Your task to perform on an android device: open sync settings in chrome Image 0: 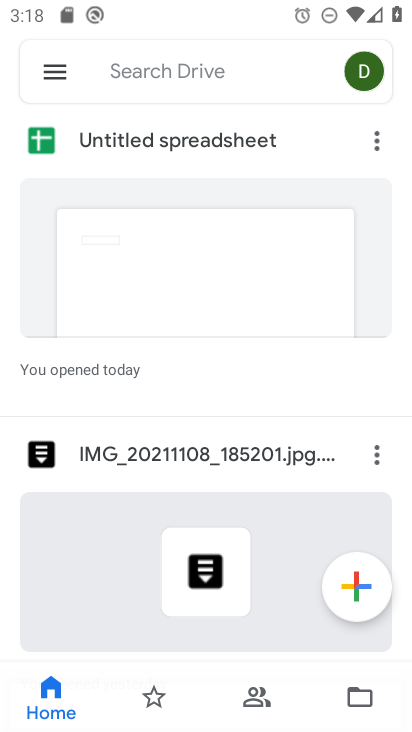
Step 0: press back button
Your task to perform on an android device: open sync settings in chrome Image 1: 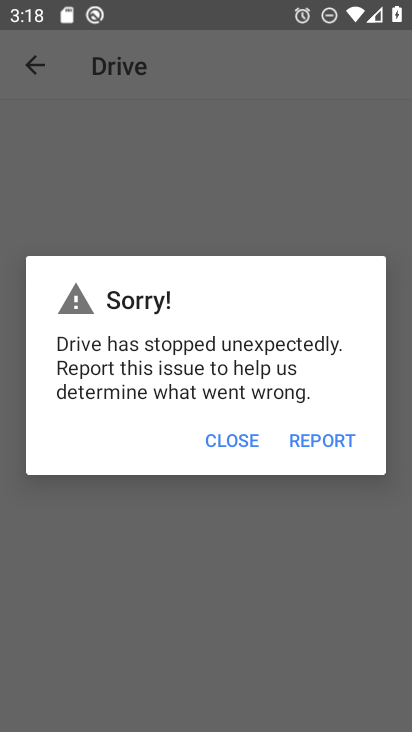
Step 1: press home button
Your task to perform on an android device: open sync settings in chrome Image 2: 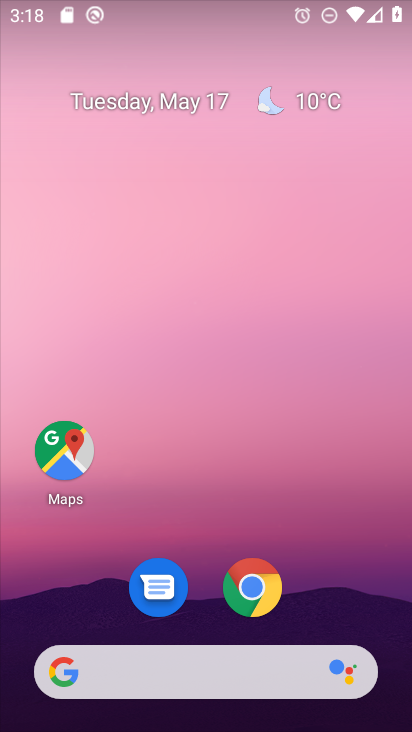
Step 2: drag from (308, 561) to (205, 12)
Your task to perform on an android device: open sync settings in chrome Image 3: 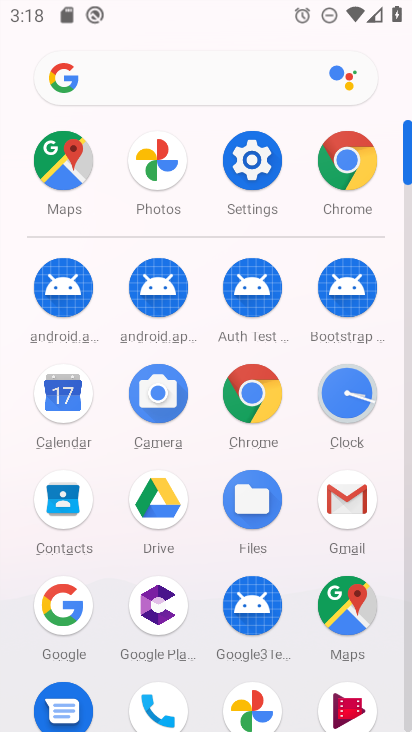
Step 3: click (349, 149)
Your task to perform on an android device: open sync settings in chrome Image 4: 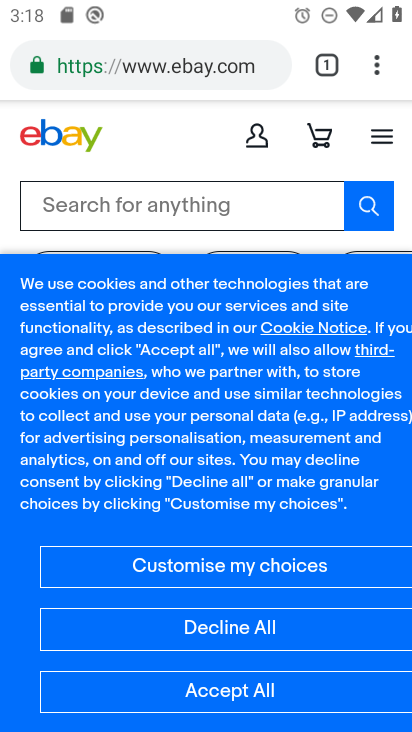
Step 4: drag from (378, 66) to (151, 629)
Your task to perform on an android device: open sync settings in chrome Image 5: 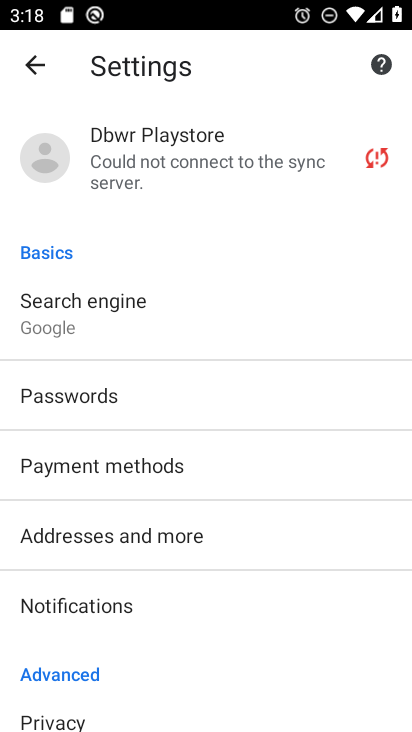
Step 5: click (111, 155)
Your task to perform on an android device: open sync settings in chrome Image 6: 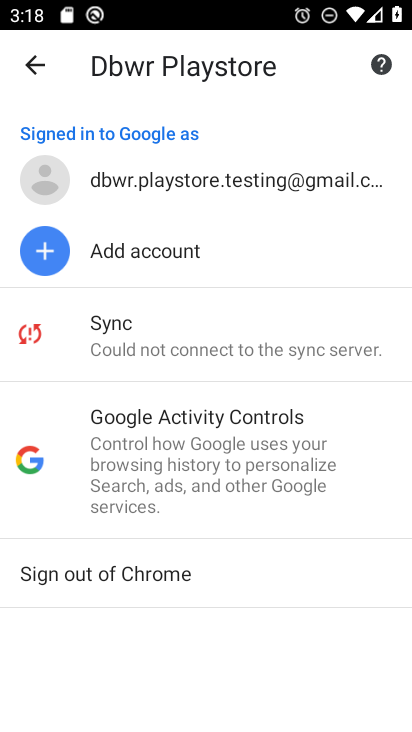
Step 6: click (167, 347)
Your task to perform on an android device: open sync settings in chrome Image 7: 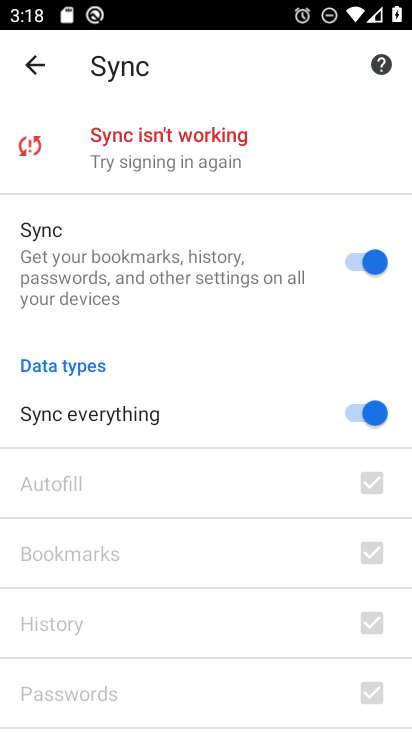
Step 7: task complete